Your task to perform on an android device: toggle notifications settings in the gmail app Image 0: 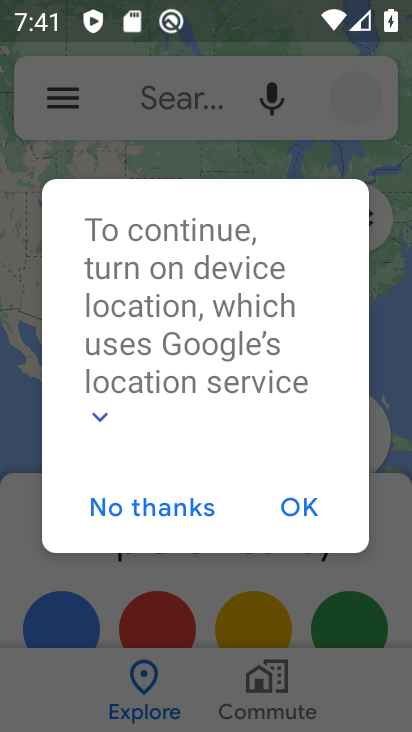
Step 0: press home button
Your task to perform on an android device: toggle notifications settings in the gmail app Image 1: 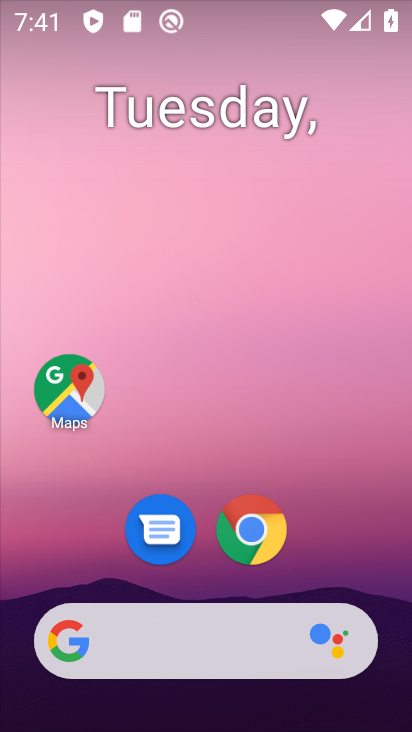
Step 1: drag from (149, 634) to (289, 70)
Your task to perform on an android device: toggle notifications settings in the gmail app Image 2: 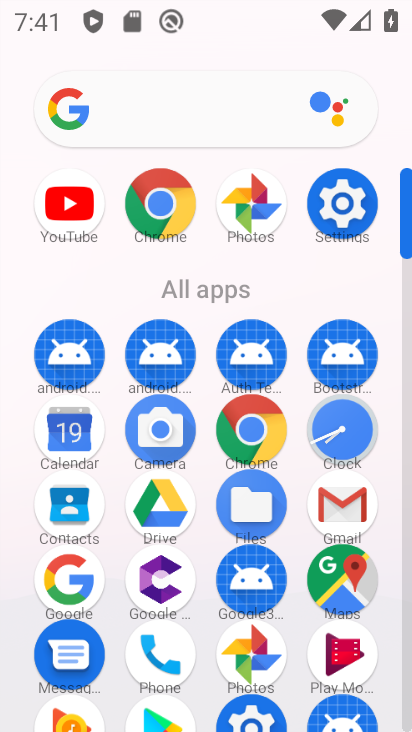
Step 2: click (341, 511)
Your task to perform on an android device: toggle notifications settings in the gmail app Image 3: 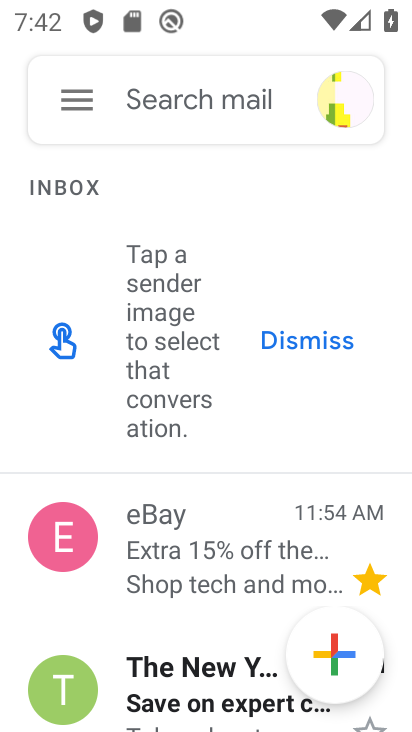
Step 3: click (77, 97)
Your task to perform on an android device: toggle notifications settings in the gmail app Image 4: 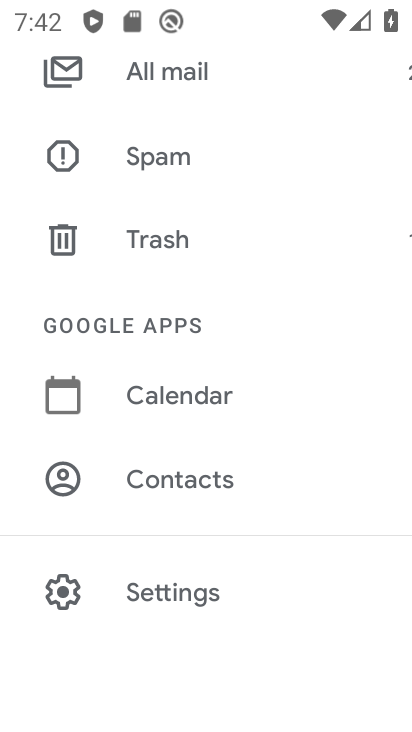
Step 4: click (150, 582)
Your task to perform on an android device: toggle notifications settings in the gmail app Image 5: 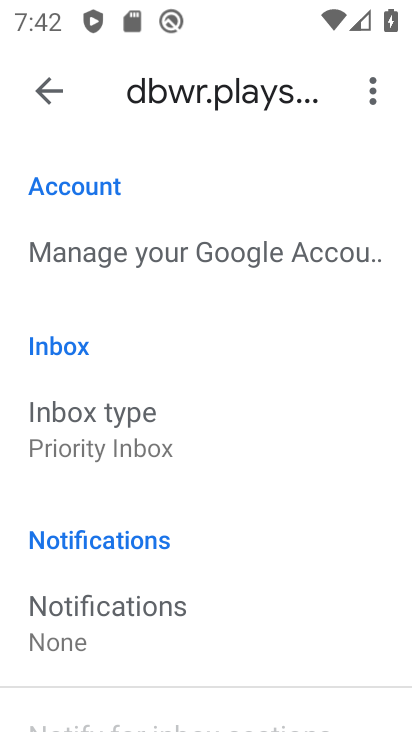
Step 5: drag from (183, 581) to (324, 214)
Your task to perform on an android device: toggle notifications settings in the gmail app Image 6: 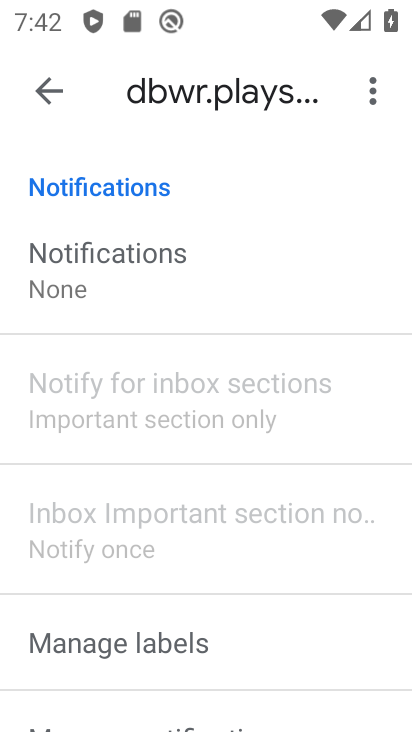
Step 6: click (102, 258)
Your task to perform on an android device: toggle notifications settings in the gmail app Image 7: 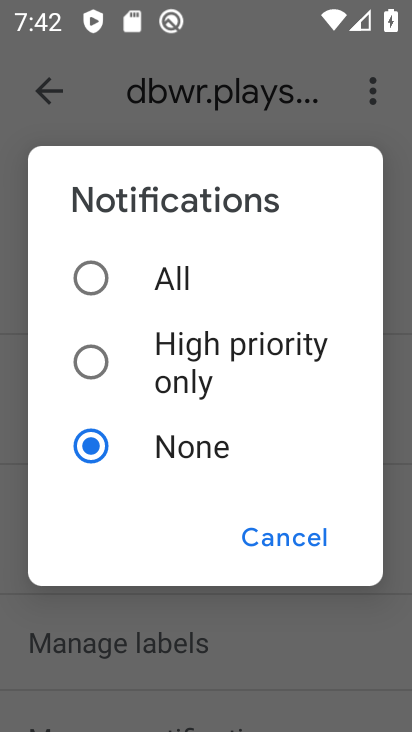
Step 7: click (90, 278)
Your task to perform on an android device: toggle notifications settings in the gmail app Image 8: 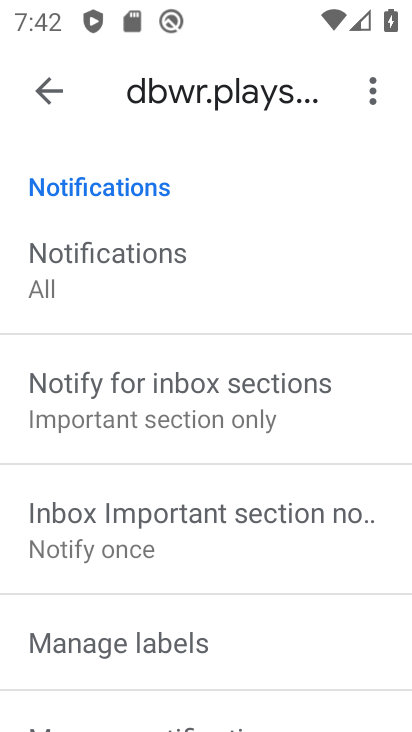
Step 8: task complete